Your task to perform on an android device: Go to calendar. Show me events next week Image 0: 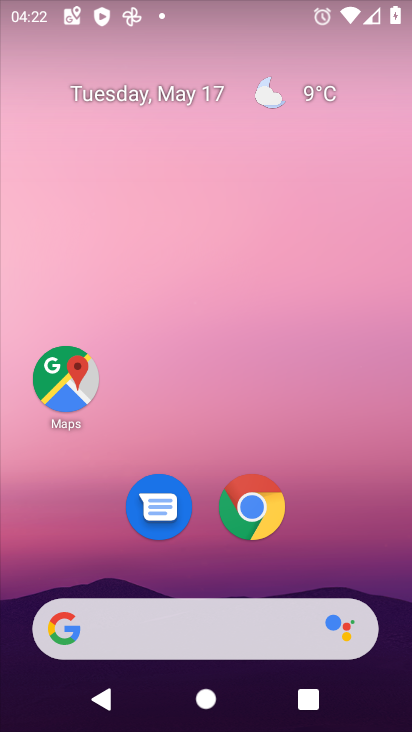
Step 0: click (140, 89)
Your task to perform on an android device: Go to calendar. Show me events next week Image 1: 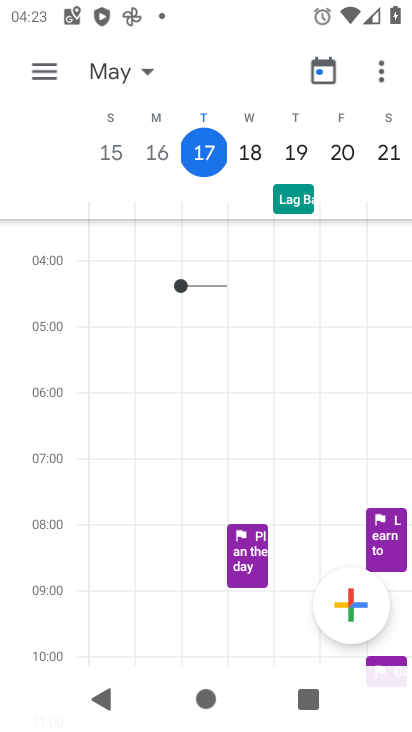
Step 1: click (149, 67)
Your task to perform on an android device: Go to calendar. Show me events next week Image 2: 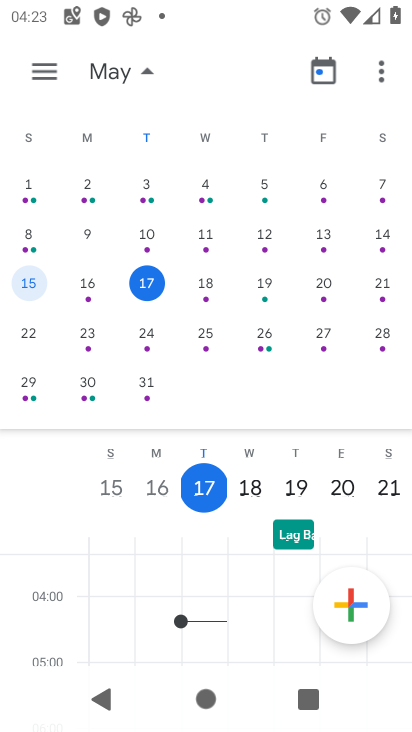
Step 2: click (32, 337)
Your task to perform on an android device: Go to calendar. Show me events next week Image 3: 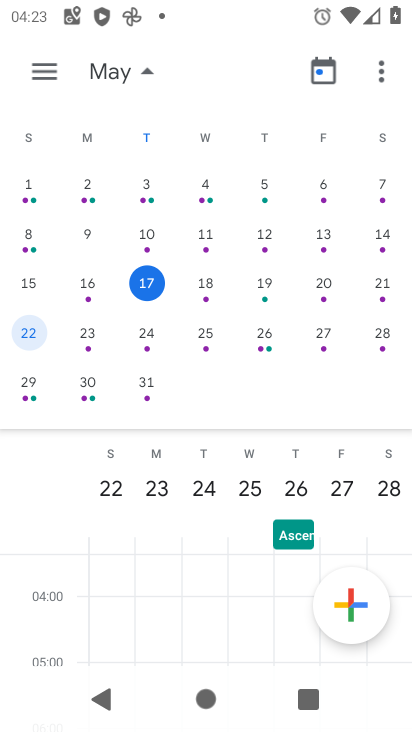
Step 3: task complete